Your task to perform on an android device: turn on airplane mode Image 0: 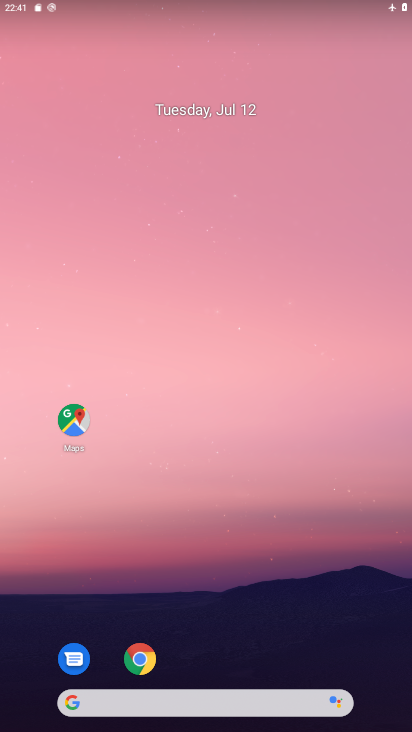
Step 0: drag from (199, 706) to (219, 214)
Your task to perform on an android device: turn on airplane mode Image 1: 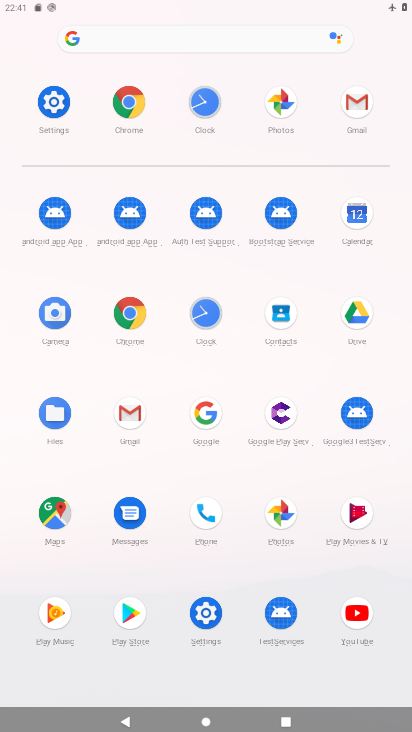
Step 1: click (48, 103)
Your task to perform on an android device: turn on airplane mode Image 2: 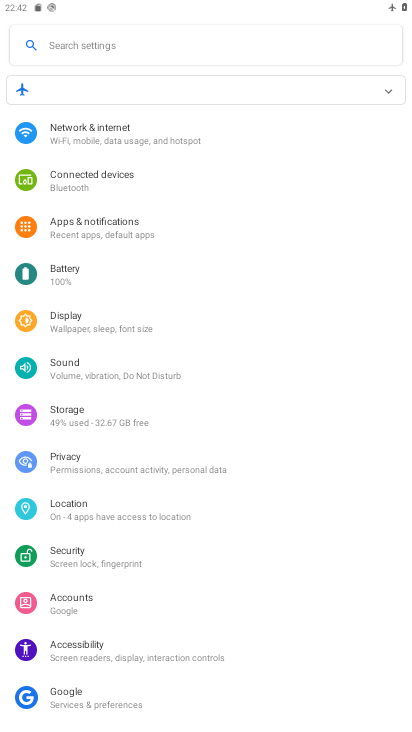
Step 2: click (118, 133)
Your task to perform on an android device: turn on airplane mode Image 3: 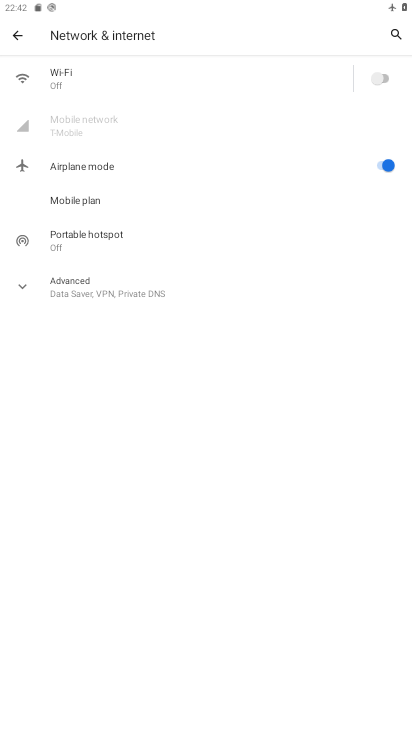
Step 3: task complete